Your task to perform on an android device: search for 2021 honda civic Image 0: 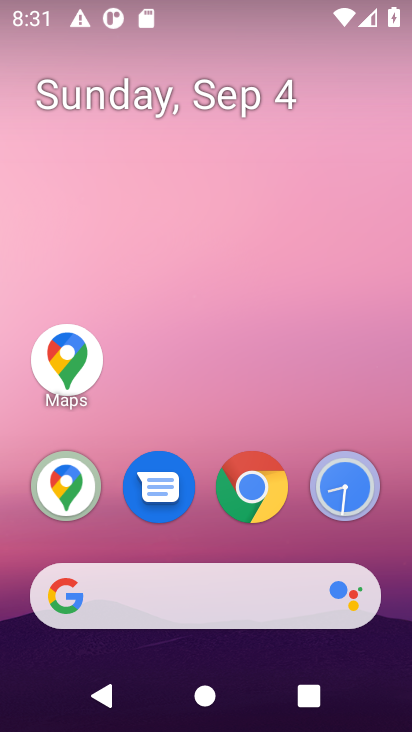
Step 0: click (158, 485)
Your task to perform on an android device: search for 2021 honda civic Image 1: 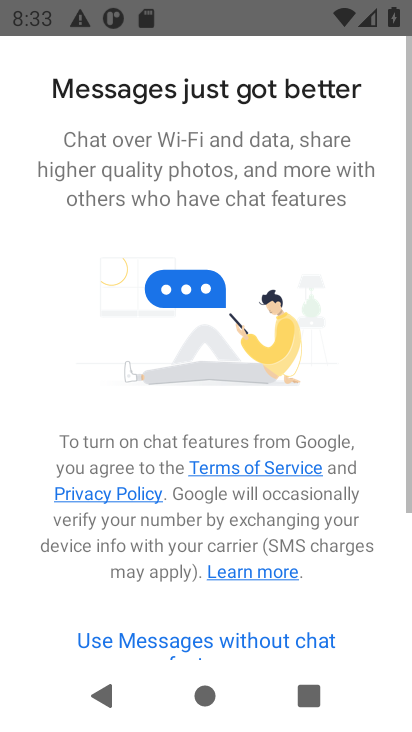
Step 1: task complete